Your task to perform on an android device: Do I have any events tomorrow? Image 0: 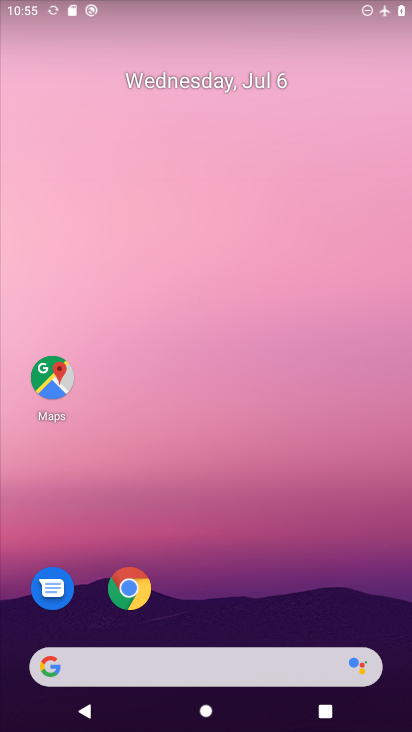
Step 0: drag from (280, 602) to (226, 78)
Your task to perform on an android device: Do I have any events tomorrow? Image 1: 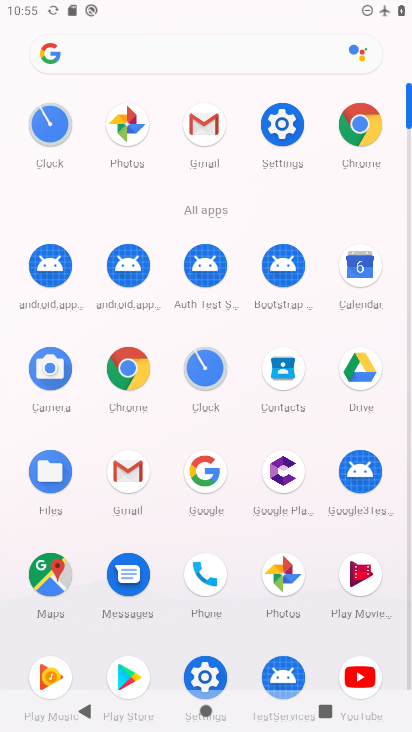
Step 1: click (369, 286)
Your task to perform on an android device: Do I have any events tomorrow? Image 2: 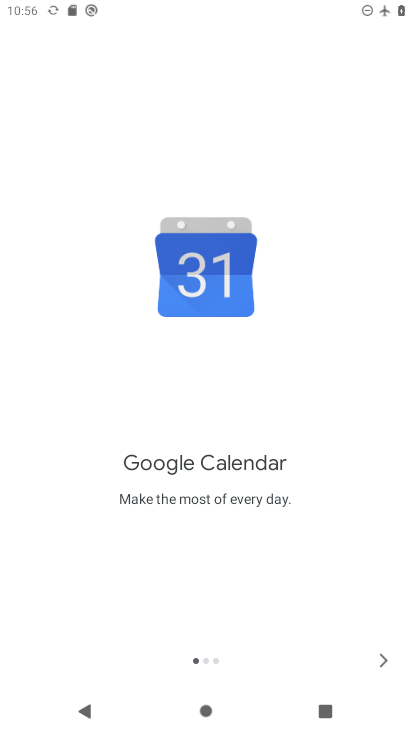
Step 2: click (379, 652)
Your task to perform on an android device: Do I have any events tomorrow? Image 3: 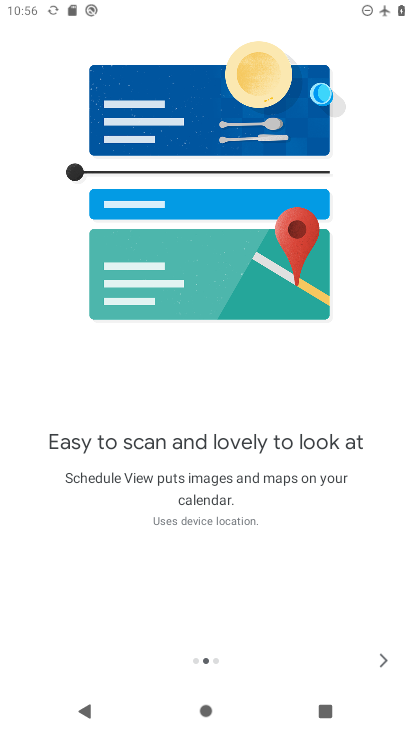
Step 3: click (380, 660)
Your task to perform on an android device: Do I have any events tomorrow? Image 4: 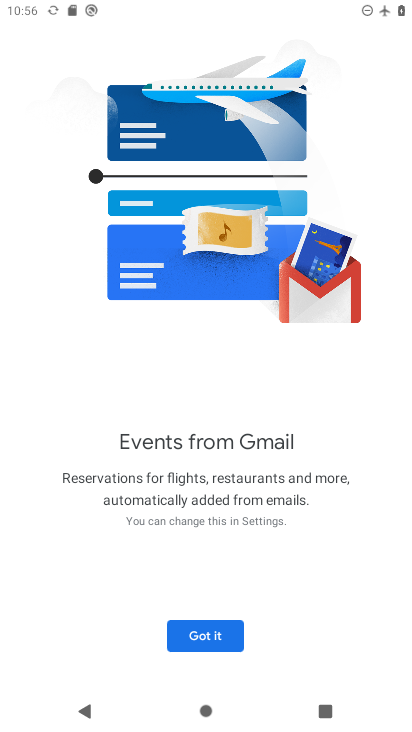
Step 4: click (204, 632)
Your task to perform on an android device: Do I have any events tomorrow? Image 5: 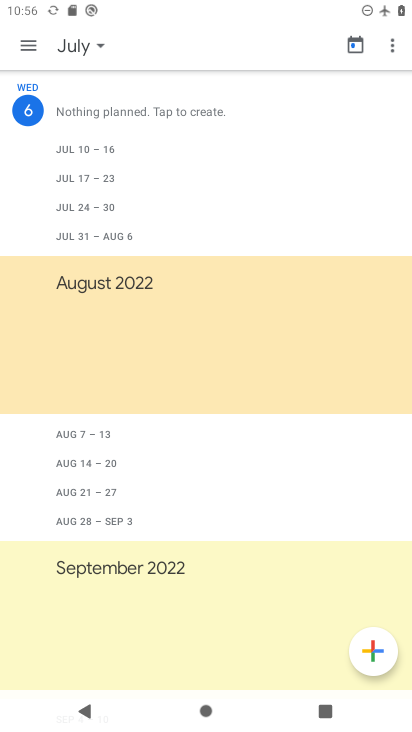
Step 5: click (23, 44)
Your task to perform on an android device: Do I have any events tomorrow? Image 6: 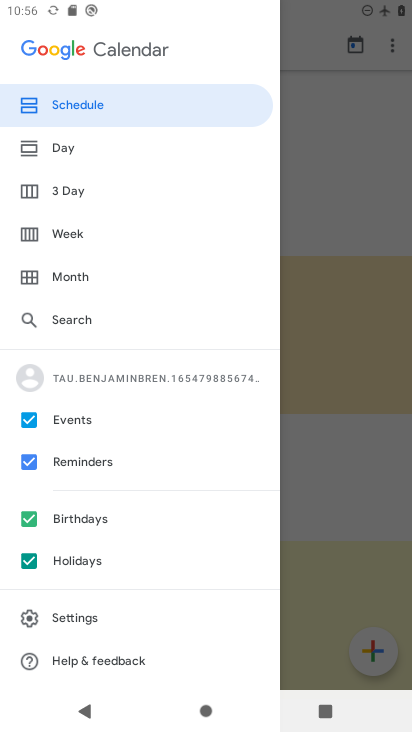
Step 6: click (71, 146)
Your task to perform on an android device: Do I have any events tomorrow? Image 7: 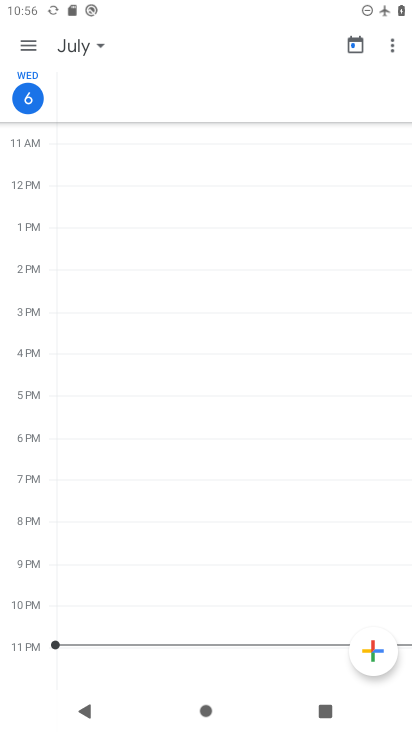
Step 7: task complete